Your task to perform on an android device: set the timer Image 0: 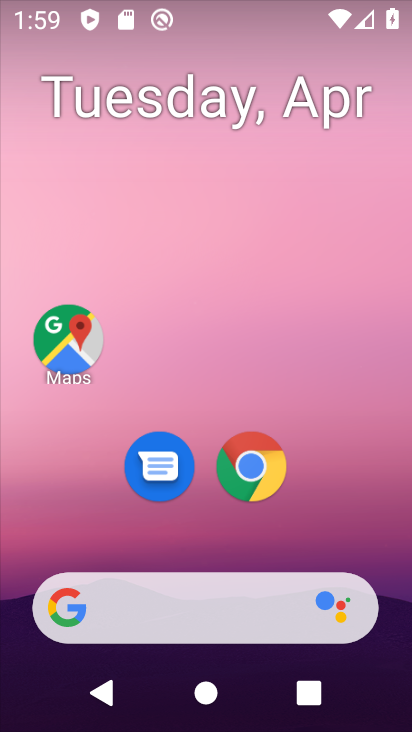
Step 0: drag from (276, 268) to (248, 32)
Your task to perform on an android device: set the timer Image 1: 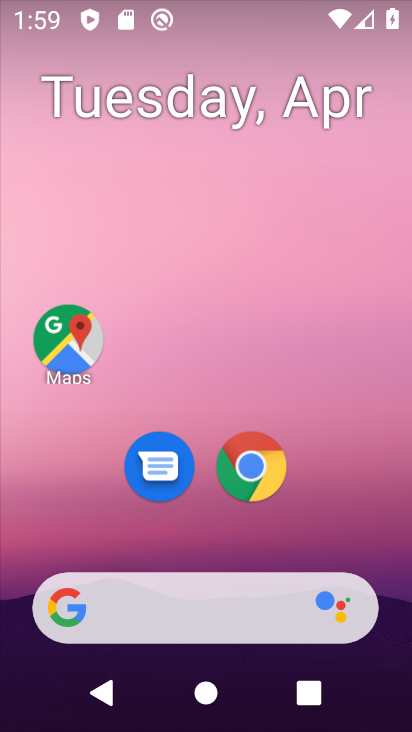
Step 1: drag from (12, 660) to (0, 62)
Your task to perform on an android device: set the timer Image 2: 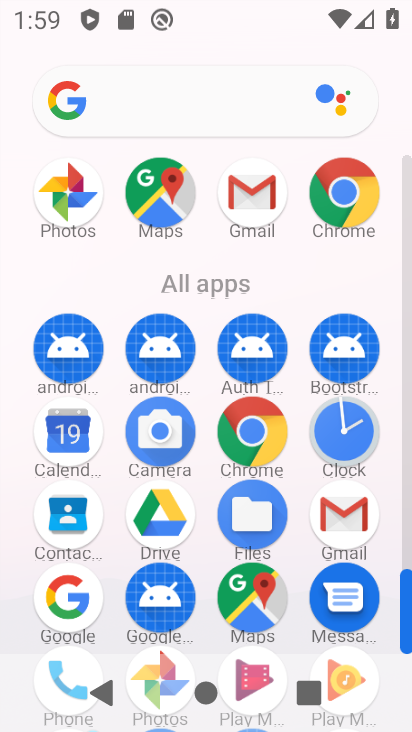
Step 2: drag from (0, 636) to (22, 300)
Your task to perform on an android device: set the timer Image 3: 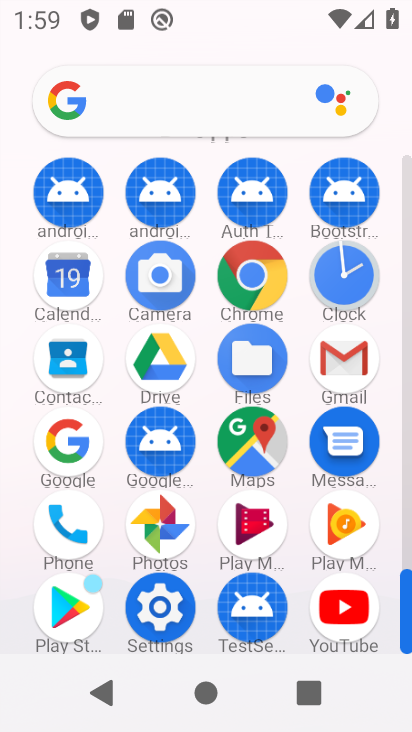
Step 3: click (347, 268)
Your task to perform on an android device: set the timer Image 4: 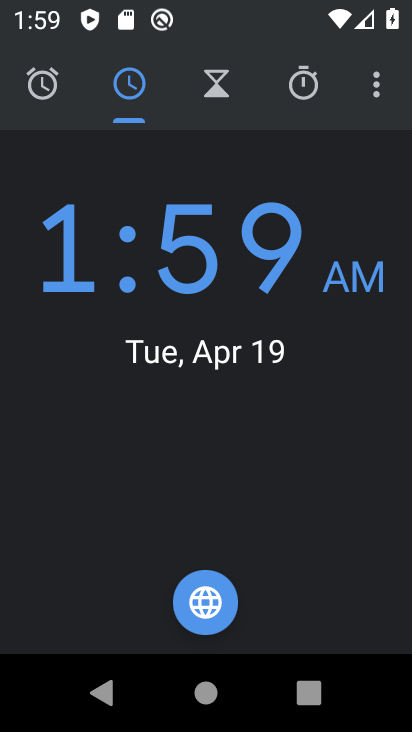
Step 4: click (244, 88)
Your task to perform on an android device: set the timer Image 5: 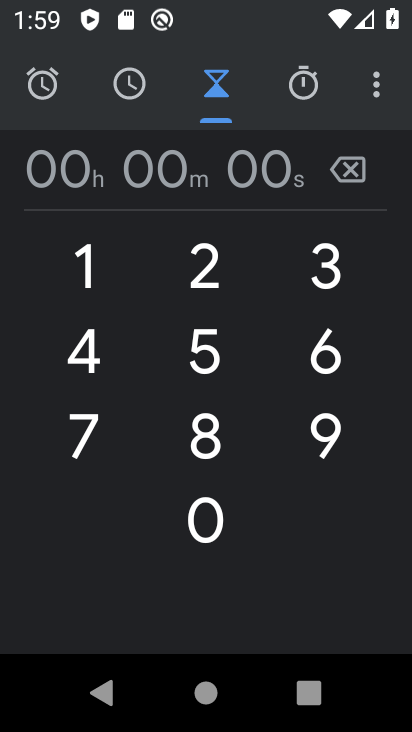
Step 5: click (202, 282)
Your task to perform on an android device: set the timer Image 6: 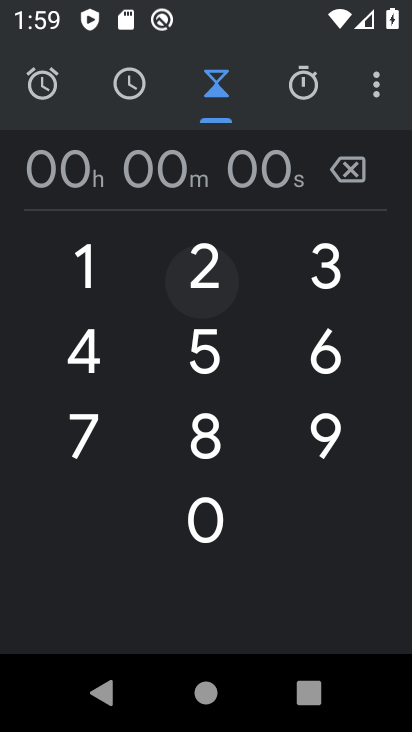
Step 6: click (202, 372)
Your task to perform on an android device: set the timer Image 7: 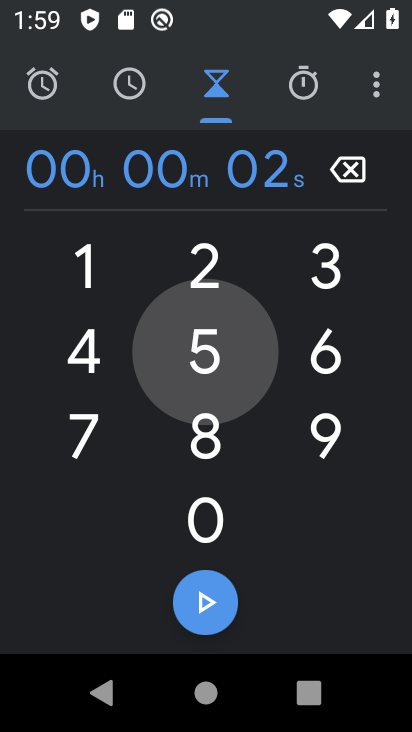
Step 7: click (92, 356)
Your task to perform on an android device: set the timer Image 8: 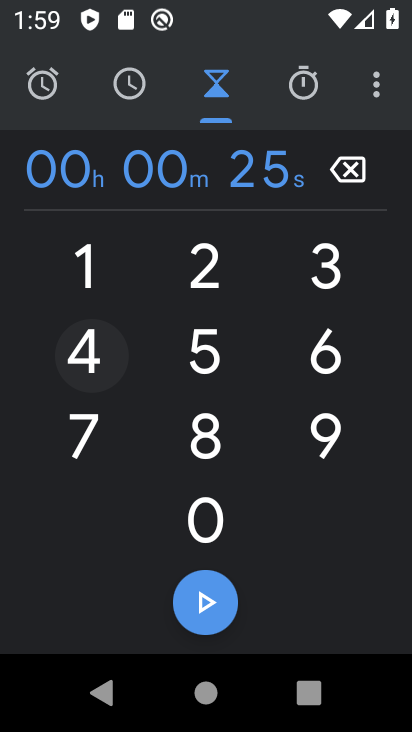
Step 8: click (88, 426)
Your task to perform on an android device: set the timer Image 9: 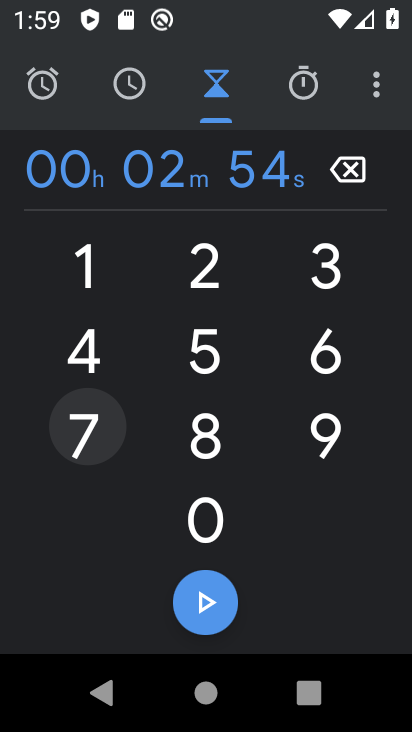
Step 9: click (195, 426)
Your task to perform on an android device: set the timer Image 10: 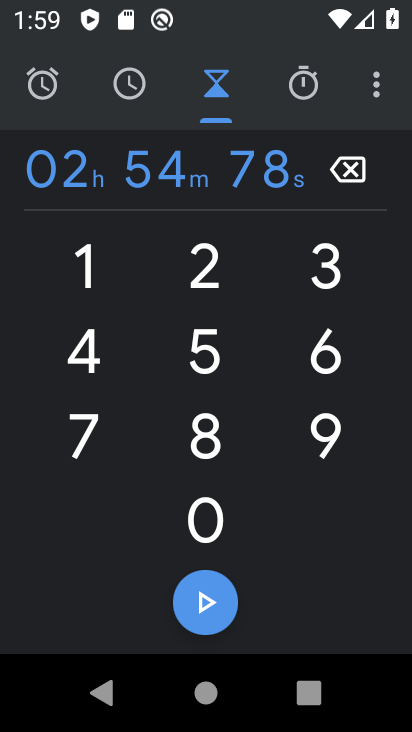
Step 10: click (213, 606)
Your task to perform on an android device: set the timer Image 11: 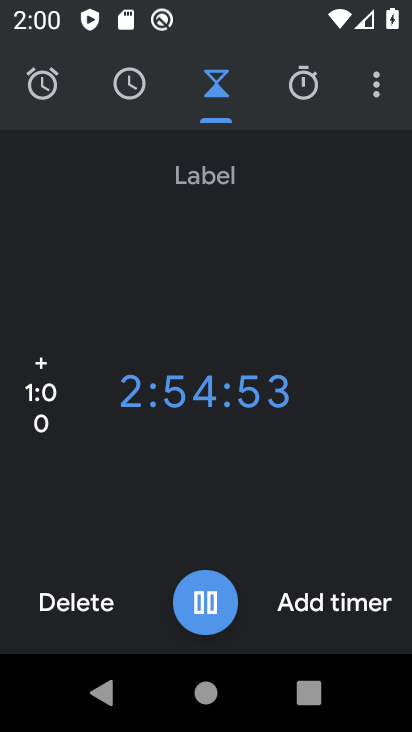
Step 11: task complete